Your task to perform on an android device: Search for sushi restaurants on Maps Image 0: 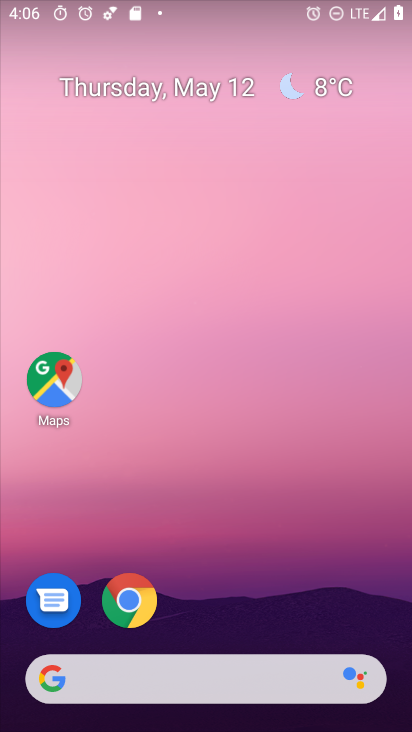
Step 0: drag from (258, 724) to (251, 152)
Your task to perform on an android device: Search for sushi restaurants on Maps Image 1: 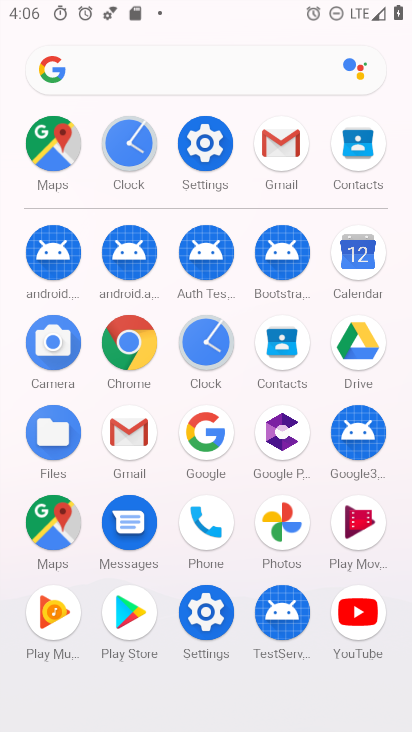
Step 1: click (56, 521)
Your task to perform on an android device: Search for sushi restaurants on Maps Image 2: 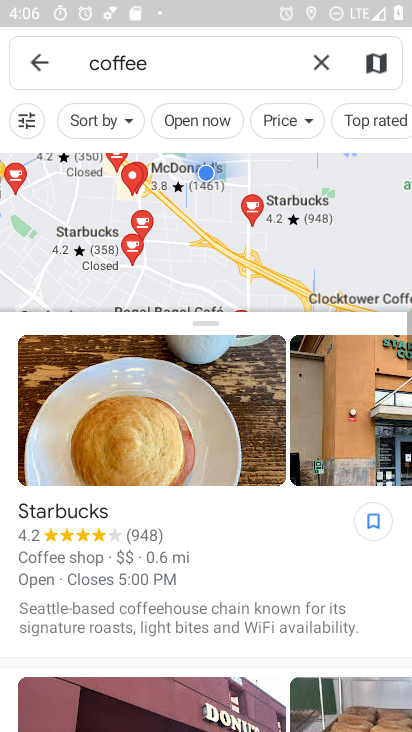
Step 2: click (317, 62)
Your task to perform on an android device: Search for sushi restaurants on Maps Image 3: 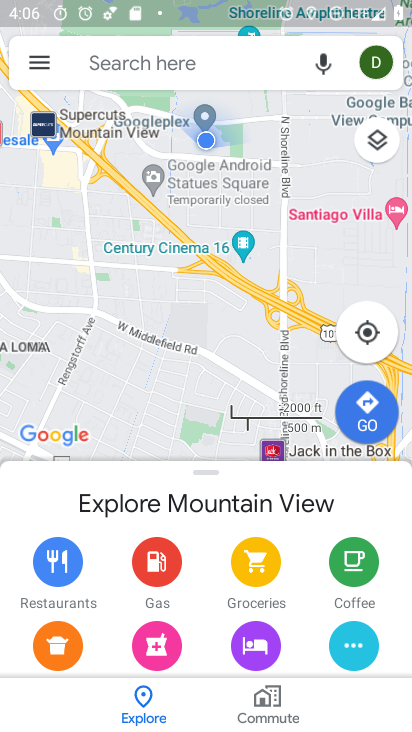
Step 3: click (177, 63)
Your task to perform on an android device: Search for sushi restaurants on Maps Image 4: 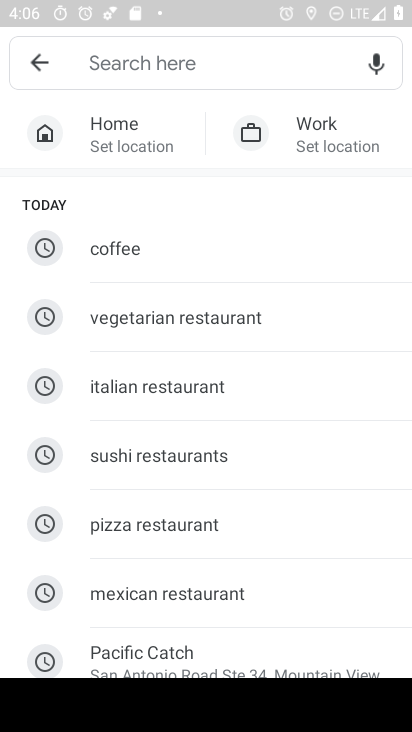
Step 4: type "sushi  restaurants"
Your task to perform on an android device: Search for sushi restaurants on Maps Image 5: 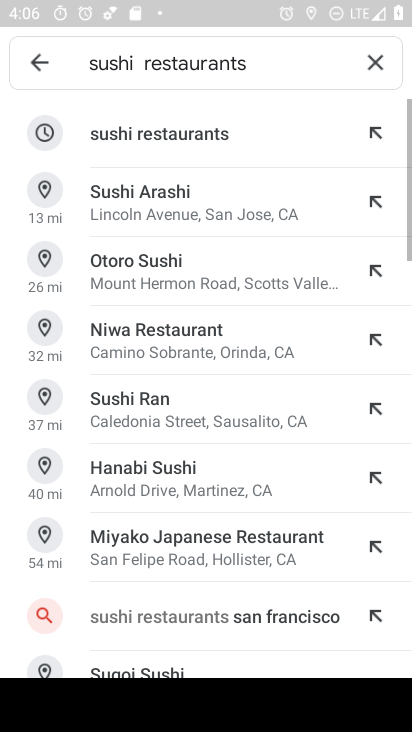
Step 5: click (164, 132)
Your task to perform on an android device: Search for sushi restaurants on Maps Image 6: 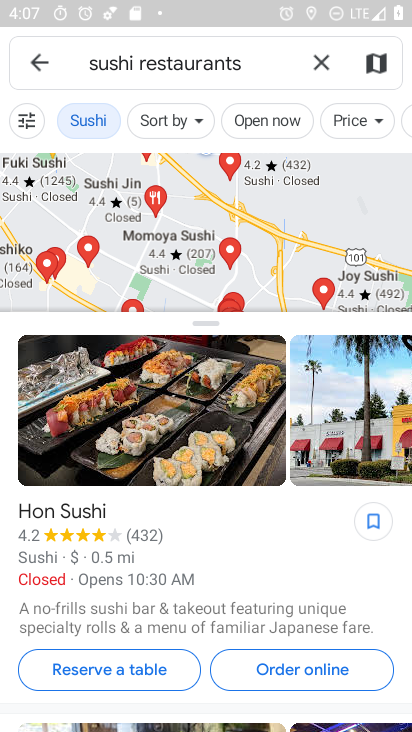
Step 6: task complete